Your task to perform on an android device: Open Chrome and go to settings Image 0: 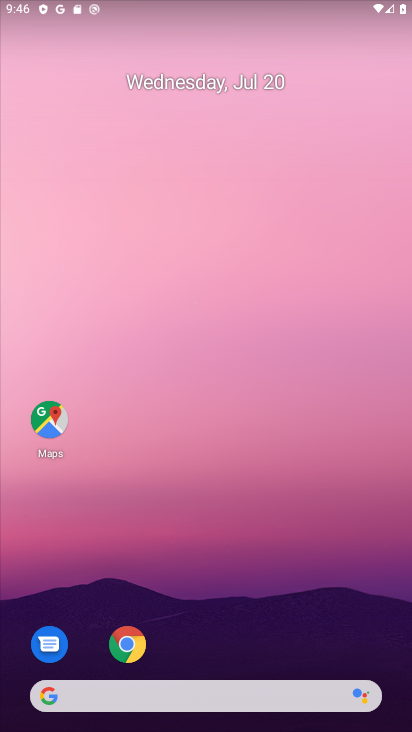
Step 0: click (122, 632)
Your task to perform on an android device: Open Chrome and go to settings Image 1: 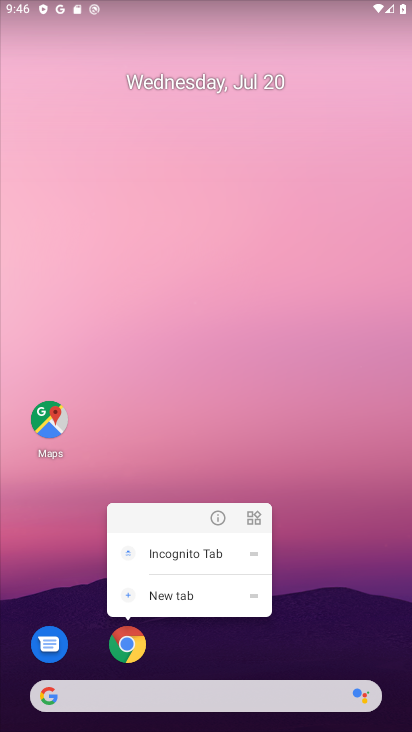
Step 1: click (125, 649)
Your task to perform on an android device: Open Chrome and go to settings Image 2: 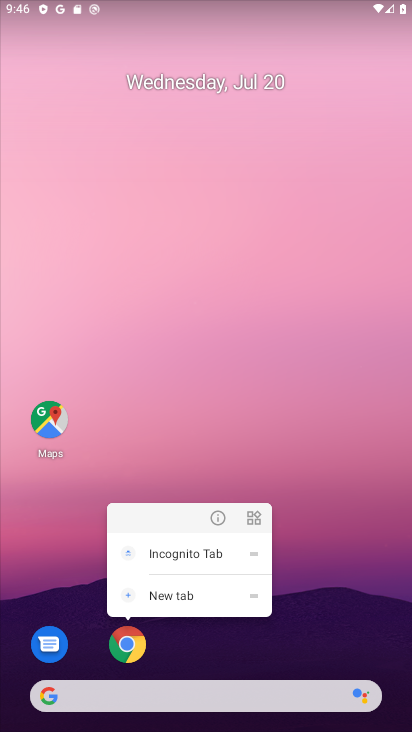
Step 2: click (125, 649)
Your task to perform on an android device: Open Chrome and go to settings Image 3: 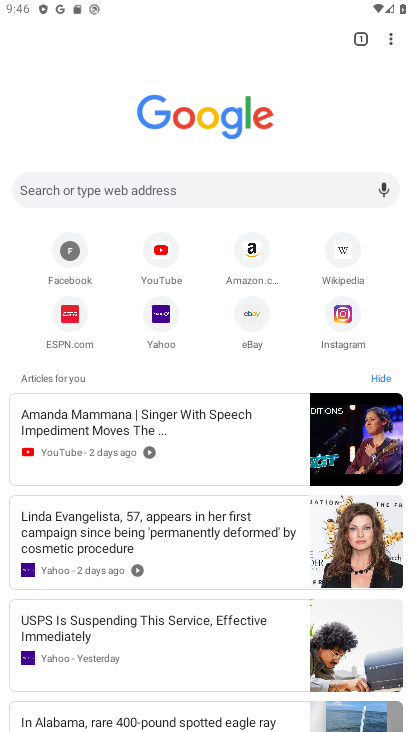
Step 3: click (388, 41)
Your task to perform on an android device: Open Chrome and go to settings Image 4: 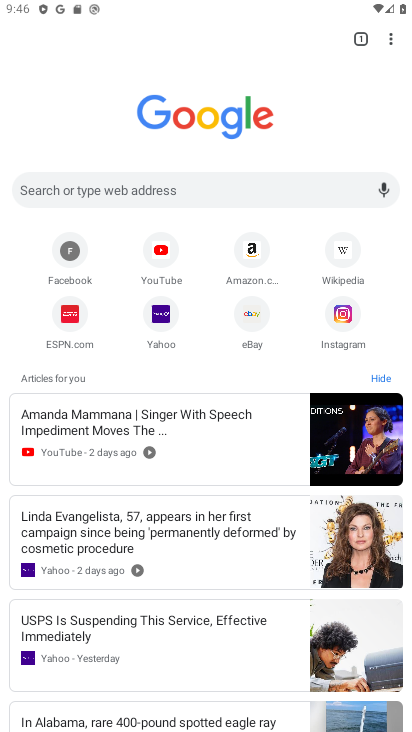
Step 4: click (391, 35)
Your task to perform on an android device: Open Chrome and go to settings Image 5: 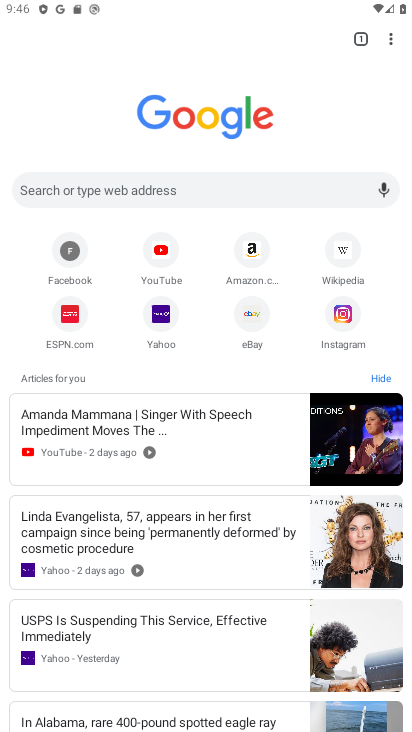
Step 5: click (387, 40)
Your task to perform on an android device: Open Chrome and go to settings Image 6: 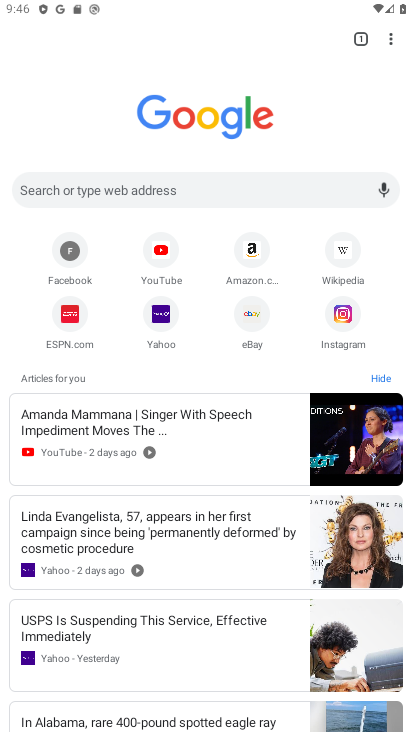
Step 6: click (387, 40)
Your task to perform on an android device: Open Chrome and go to settings Image 7: 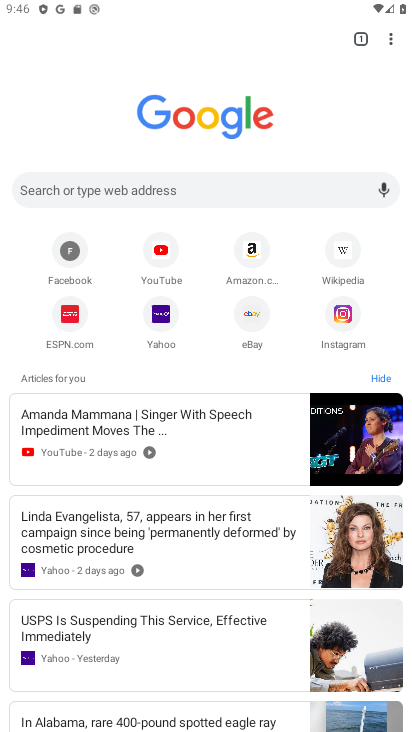
Step 7: click (389, 38)
Your task to perform on an android device: Open Chrome and go to settings Image 8: 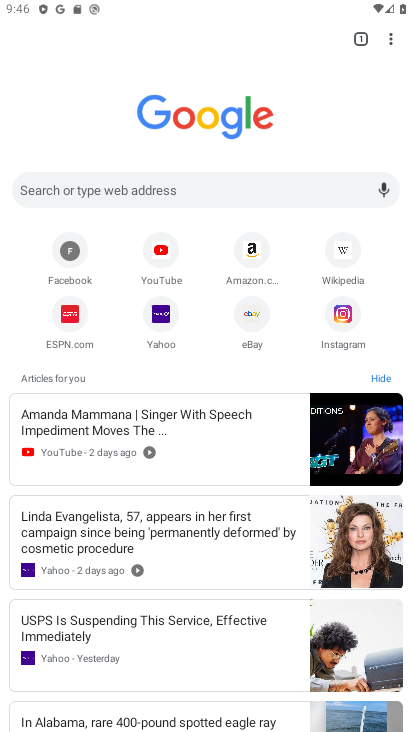
Step 8: click (394, 38)
Your task to perform on an android device: Open Chrome and go to settings Image 9: 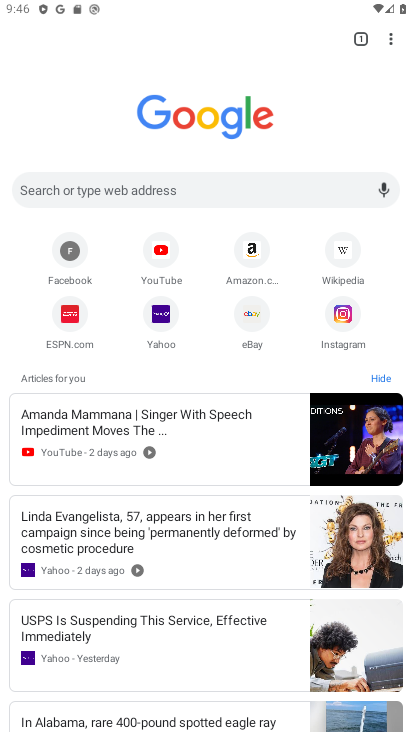
Step 9: click (389, 37)
Your task to perform on an android device: Open Chrome and go to settings Image 10: 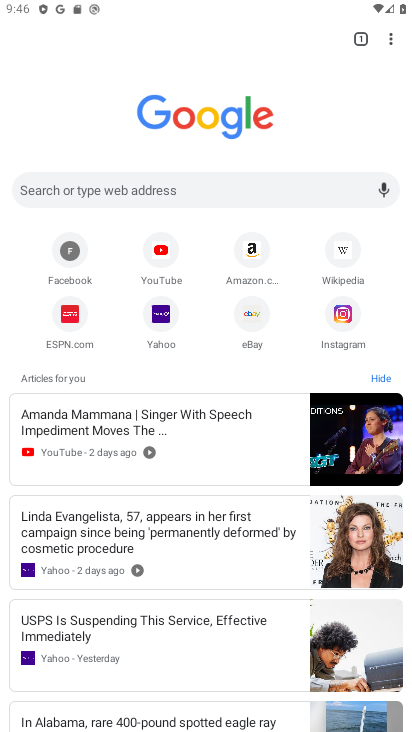
Step 10: click (389, 37)
Your task to perform on an android device: Open Chrome and go to settings Image 11: 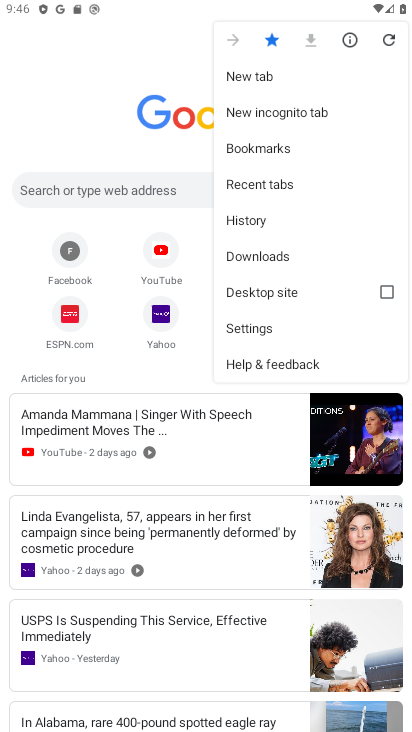
Step 11: click (256, 322)
Your task to perform on an android device: Open Chrome and go to settings Image 12: 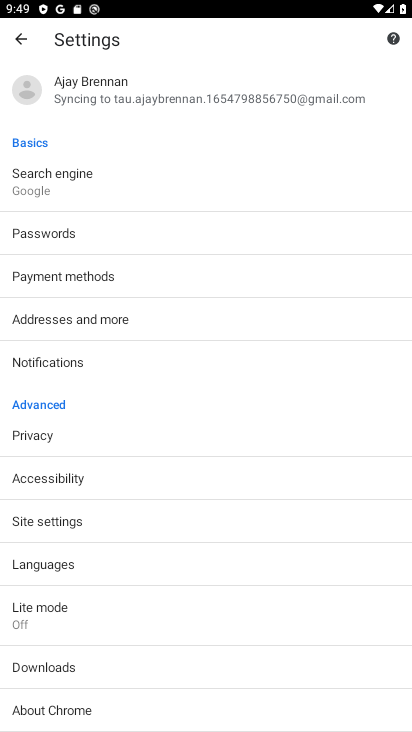
Step 12: task complete